Your task to perform on an android device: Open calendar and show me the third week of next month Image 0: 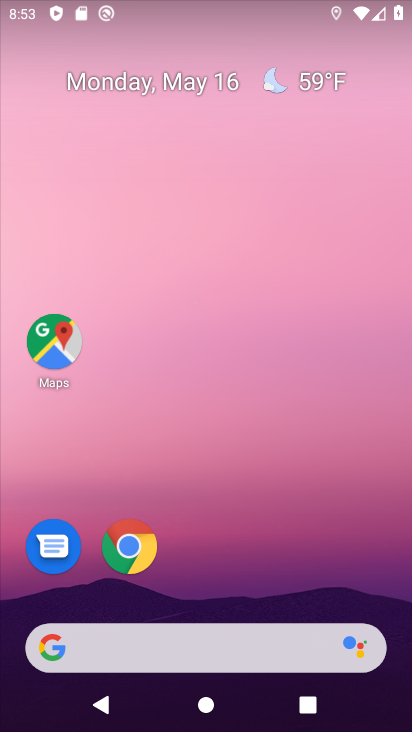
Step 0: drag from (293, 472) to (316, 92)
Your task to perform on an android device: Open calendar and show me the third week of next month Image 1: 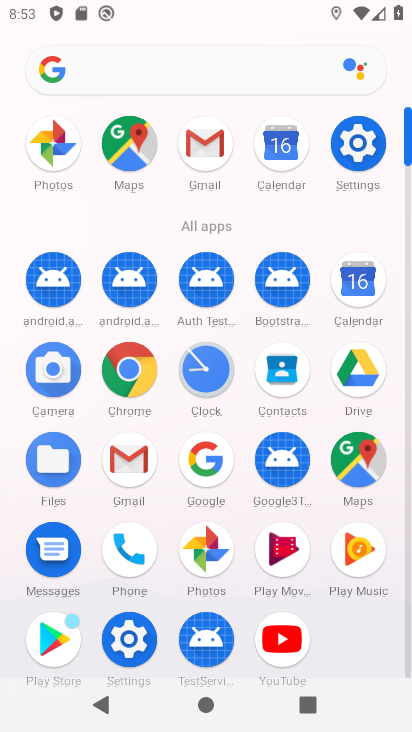
Step 1: click (358, 301)
Your task to perform on an android device: Open calendar and show me the third week of next month Image 2: 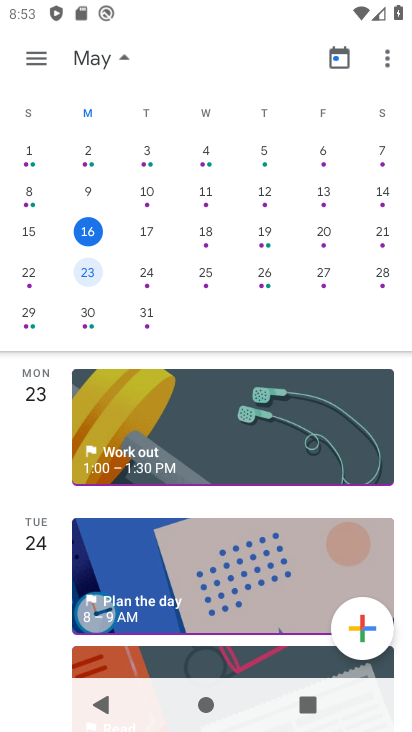
Step 2: drag from (379, 246) to (2, 319)
Your task to perform on an android device: Open calendar and show me the third week of next month Image 3: 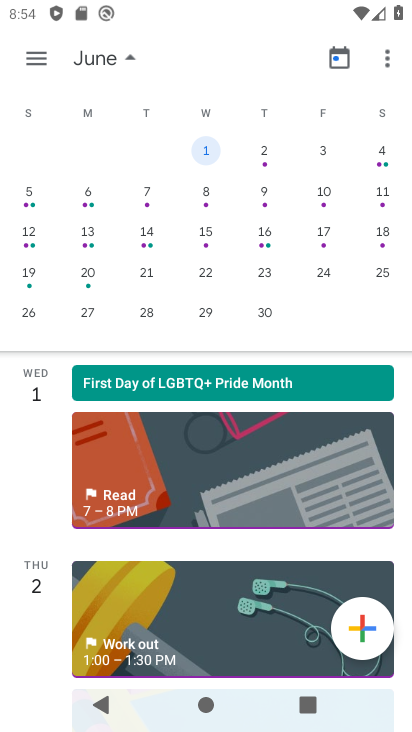
Step 3: click (141, 277)
Your task to perform on an android device: Open calendar and show me the third week of next month Image 4: 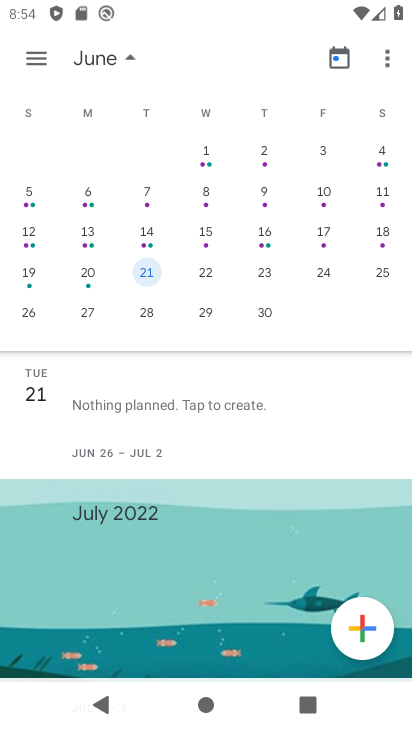
Step 4: task complete